Your task to perform on an android device: Open Android settings Image 0: 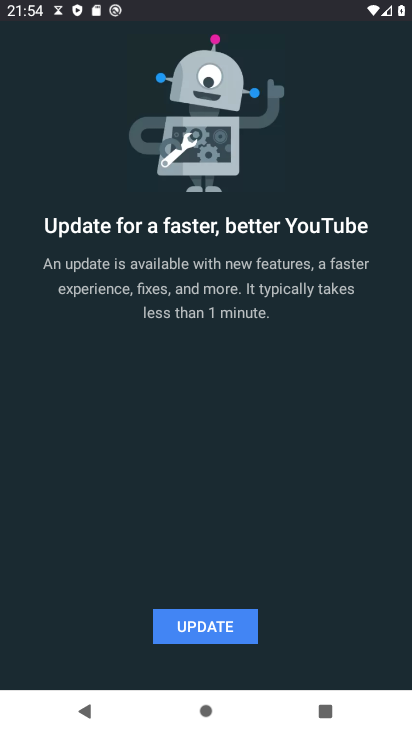
Step 0: press home button
Your task to perform on an android device: Open Android settings Image 1: 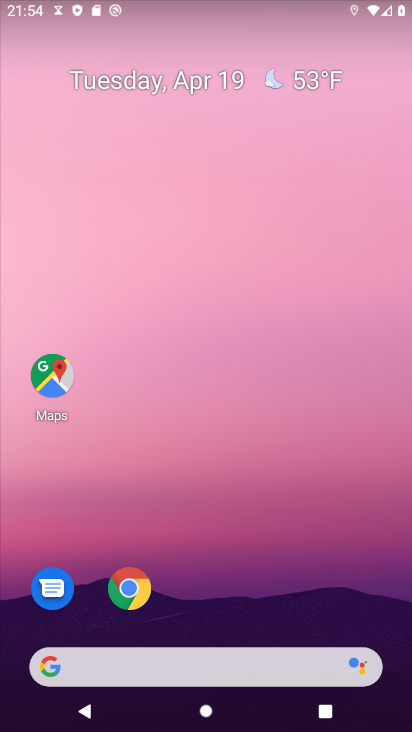
Step 1: drag from (225, 627) to (235, 129)
Your task to perform on an android device: Open Android settings Image 2: 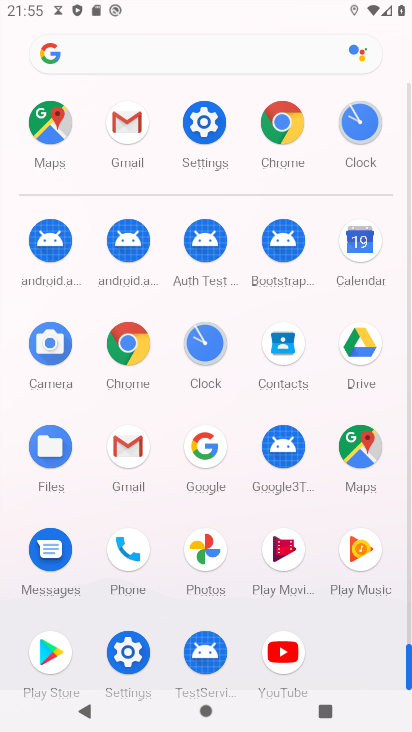
Step 2: click (204, 125)
Your task to perform on an android device: Open Android settings Image 3: 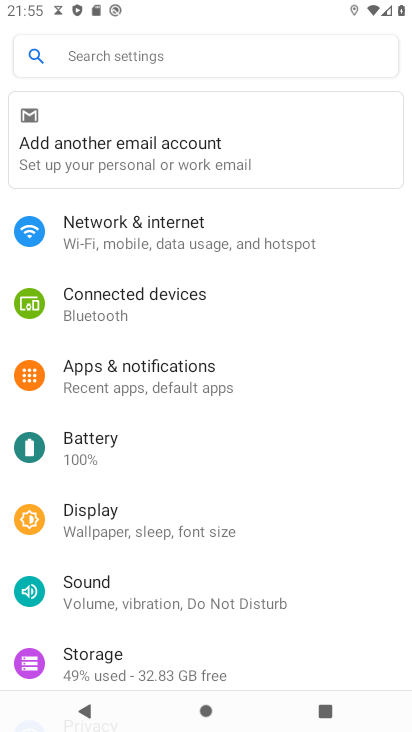
Step 3: drag from (164, 436) to (205, 305)
Your task to perform on an android device: Open Android settings Image 4: 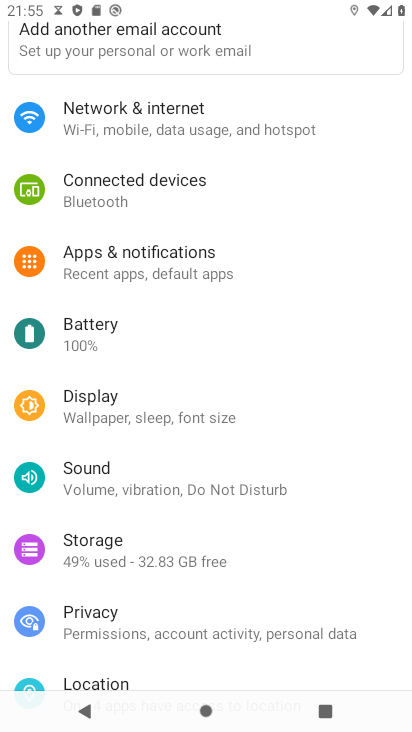
Step 4: drag from (178, 380) to (182, 276)
Your task to perform on an android device: Open Android settings Image 5: 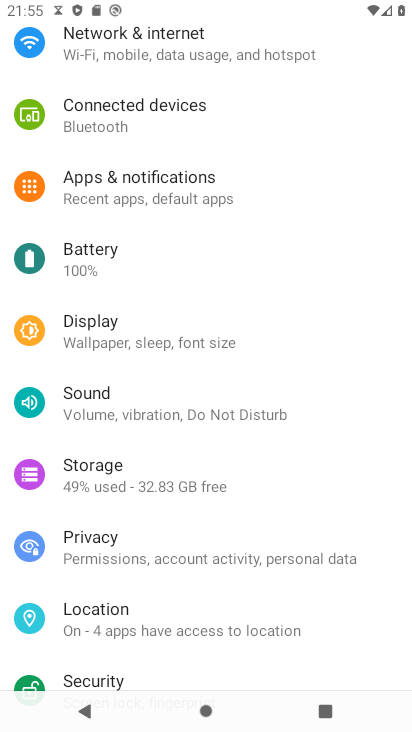
Step 5: drag from (162, 376) to (217, 248)
Your task to perform on an android device: Open Android settings Image 6: 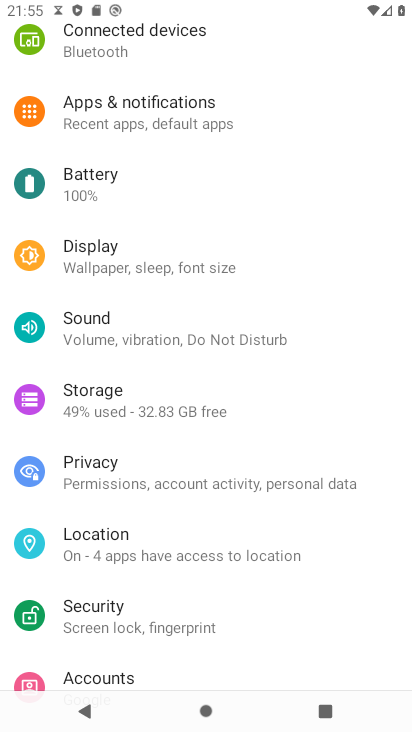
Step 6: drag from (160, 513) to (205, 375)
Your task to perform on an android device: Open Android settings Image 7: 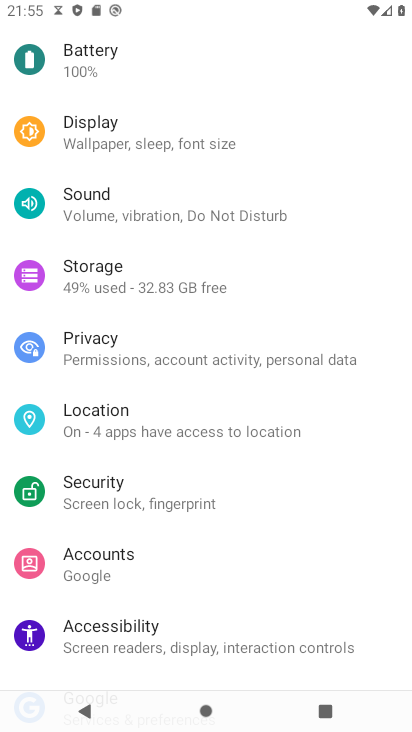
Step 7: drag from (133, 470) to (175, 322)
Your task to perform on an android device: Open Android settings Image 8: 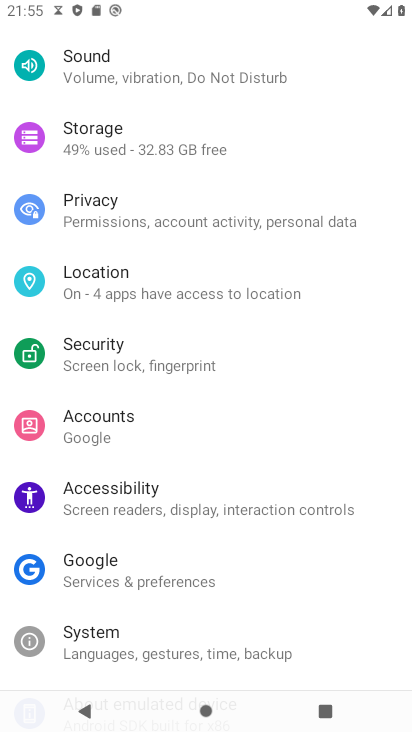
Step 8: drag from (150, 428) to (165, 258)
Your task to perform on an android device: Open Android settings Image 9: 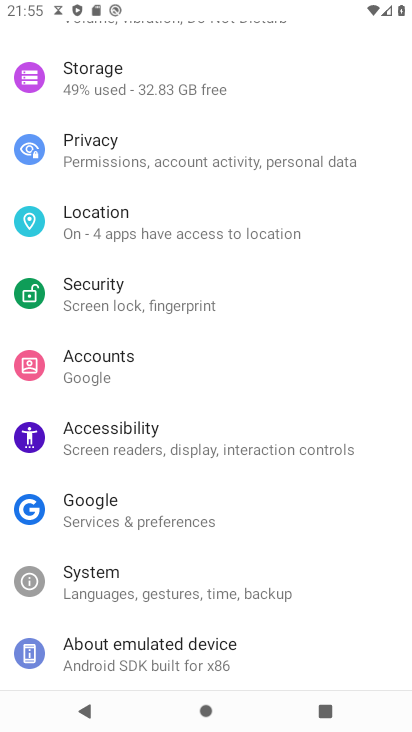
Step 9: click (139, 647)
Your task to perform on an android device: Open Android settings Image 10: 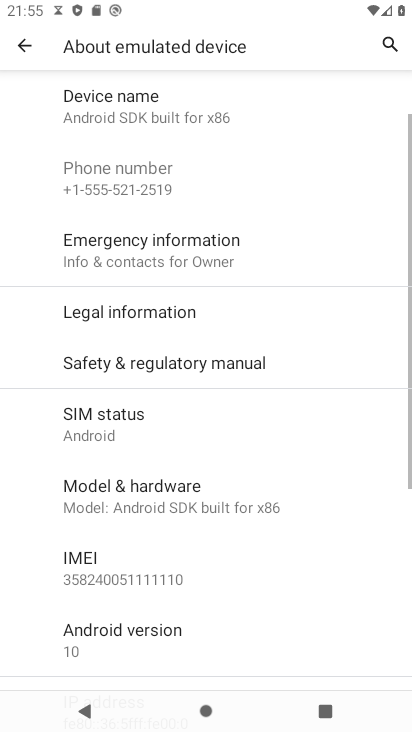
Step 10: drag from (171, 541) to (219, 419)
Your task to perform on an android device: Open Android settings Image 11: 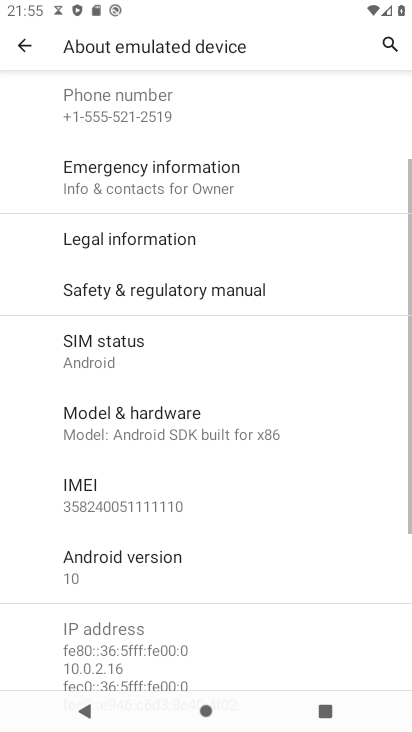
Step 11: click (136, 551)
Your task to perform on an android device: Open Android settings Image 12: 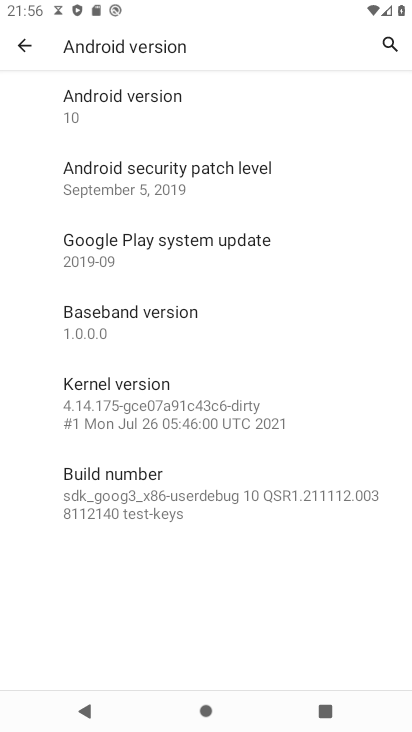
Step 12: task complete